Your task to perform on an android device: Open the map Image 0: 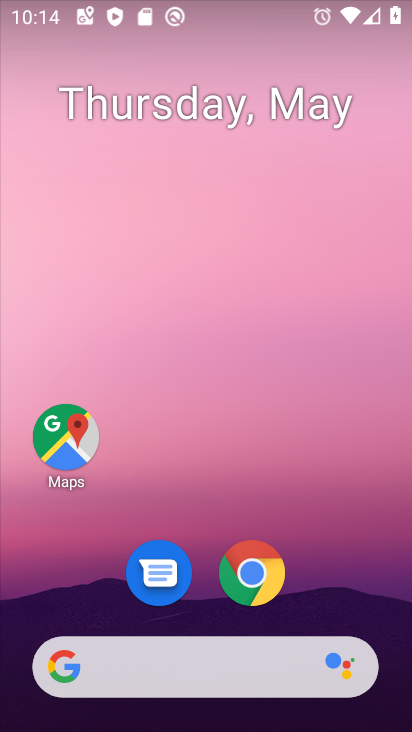
Step 0: click (64, 462)
Your task to perform on an android device: Open the map Image 1: 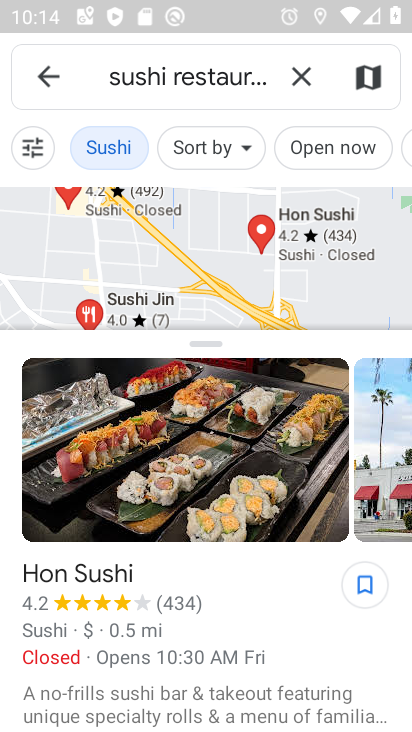
Step 1: task complete